Your task to perform on an android device: toggle sleep mode Image 0: 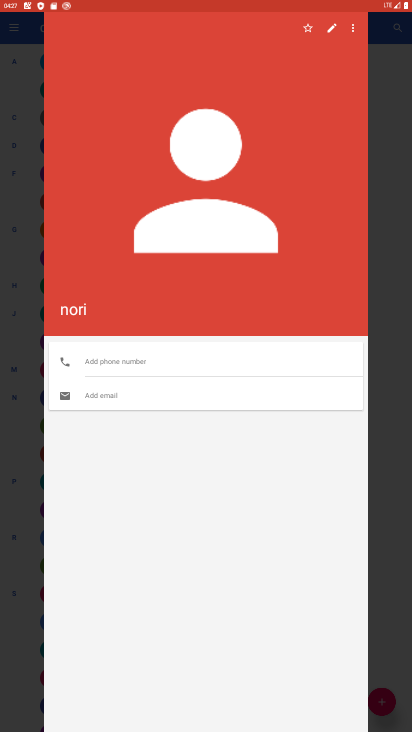
Step 0: press home button
Your task to perform on an android device: toggle sleep mode Image 1: 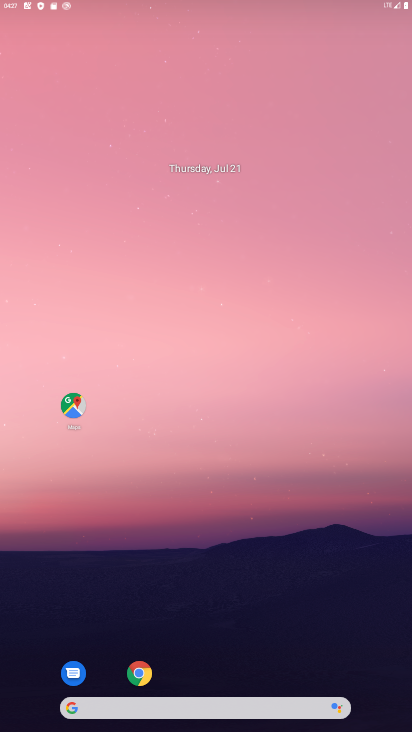
Step 1: drag from (351, 630) to (222, 145)
Your task to perform on an android device: toggle sleep mode Image 2: 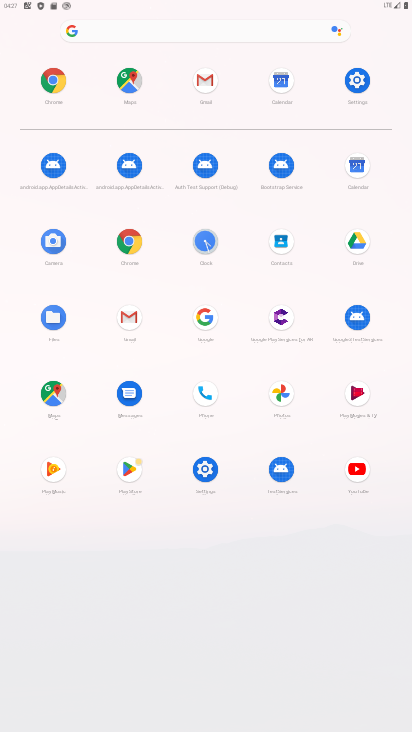
Step 2: click (361, 77)
Your task to perform on an android device: toggle sleep mode Image 3: 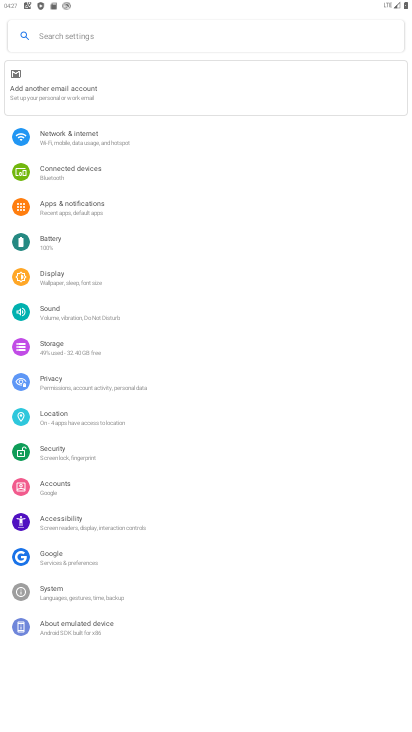
Step 3: click (82, 278)
Your task to perform on an android device: toggle sleep mode Image 4: 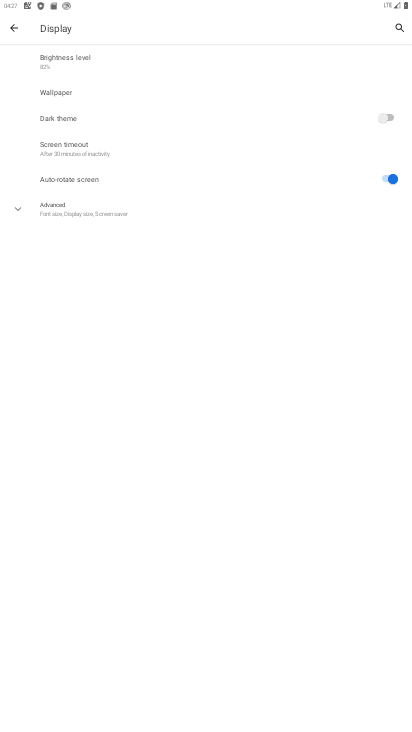
Step 4: click (107, 155)
Your task to perform on an android device: toggle sleep mode Image 5: 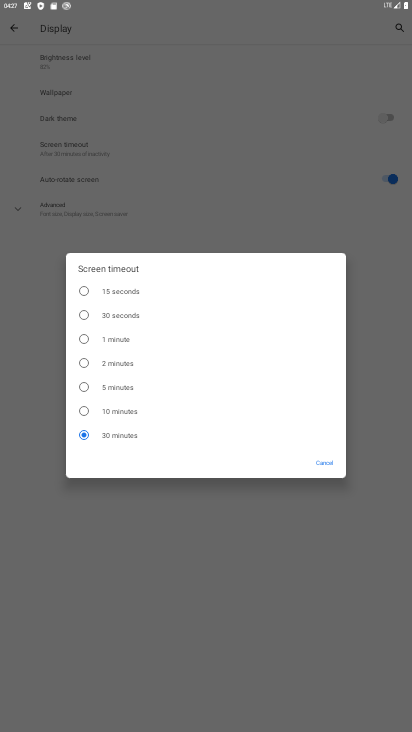
Step 5: click (120, 413)
Your task to perform on an android device: toggle sleep mode Image 6: 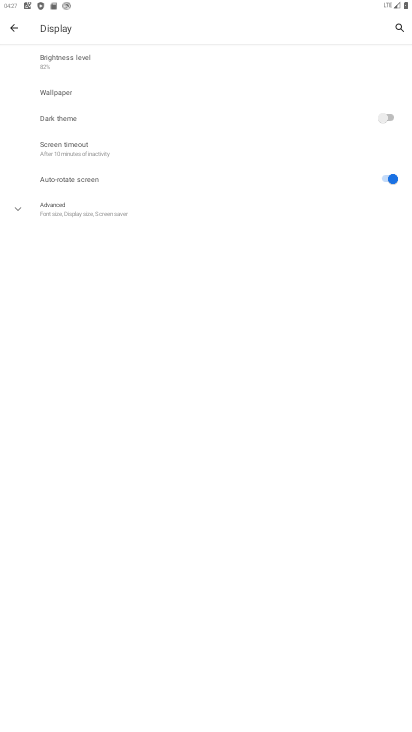
Step 6: task complete